Your task to perform on an android device: Open ESPN.com Image 0: 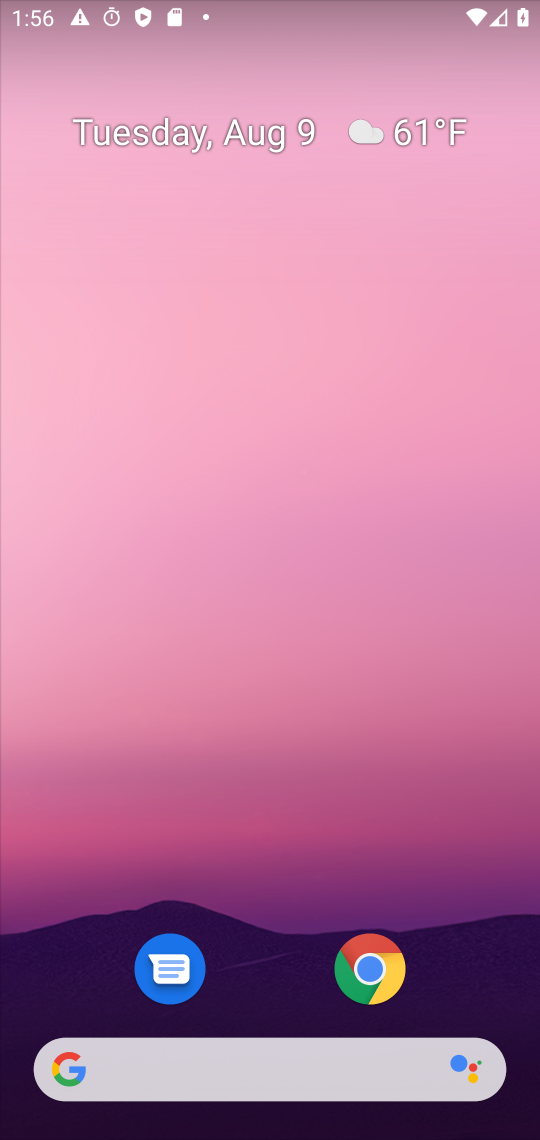
Step 0: drag from (338, 1081) to (279, 538)
Your task to perform on an android device: Open ESPN.com Image 1: 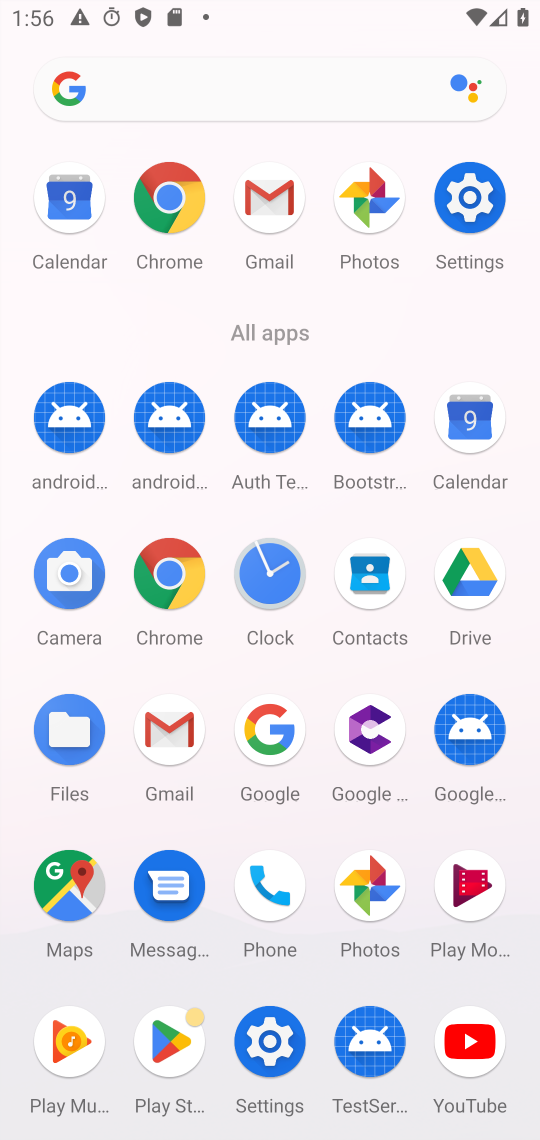
Step 1: click (164, 205)
Your task to perform on an android device: Open ESPN.com Image 2: 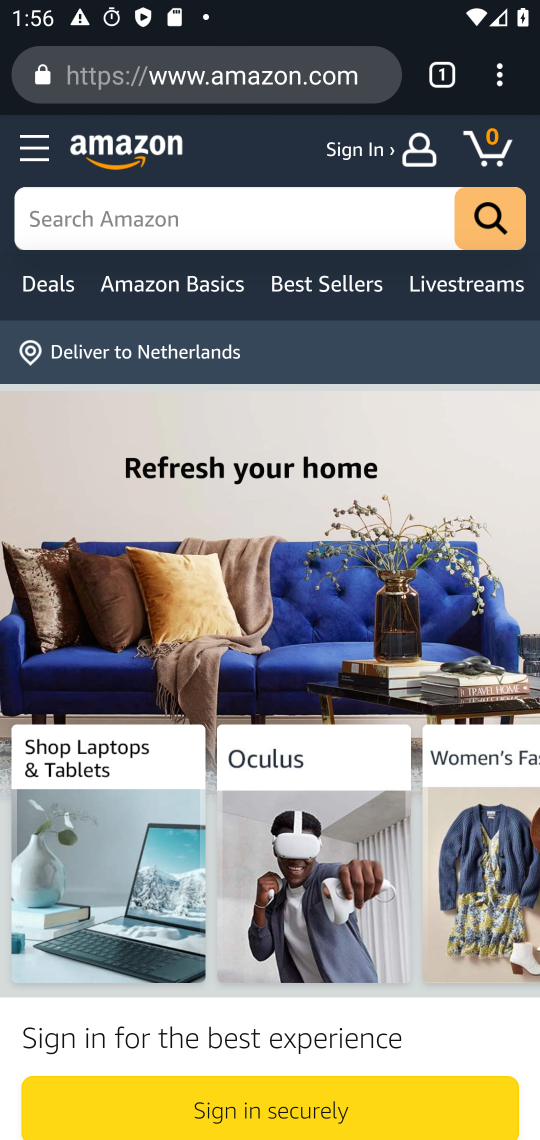
Step 2: click (215, 83)
Your task to perform on an android device: Open ESPN.com Image 3: 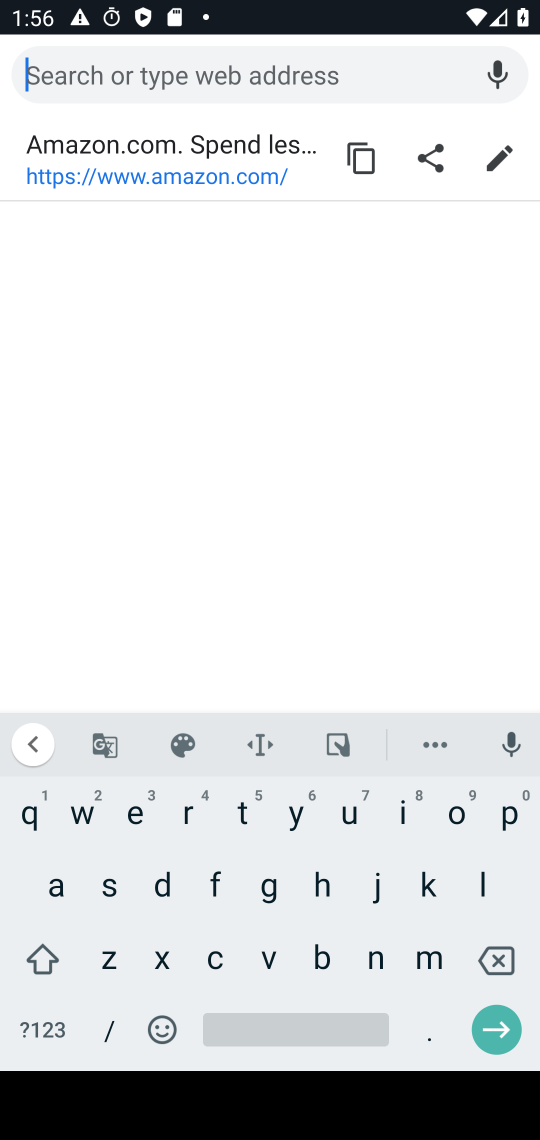
Step 3: click (128, 813)
Your task to perform on an android device: Open ESPN.com Image 4: 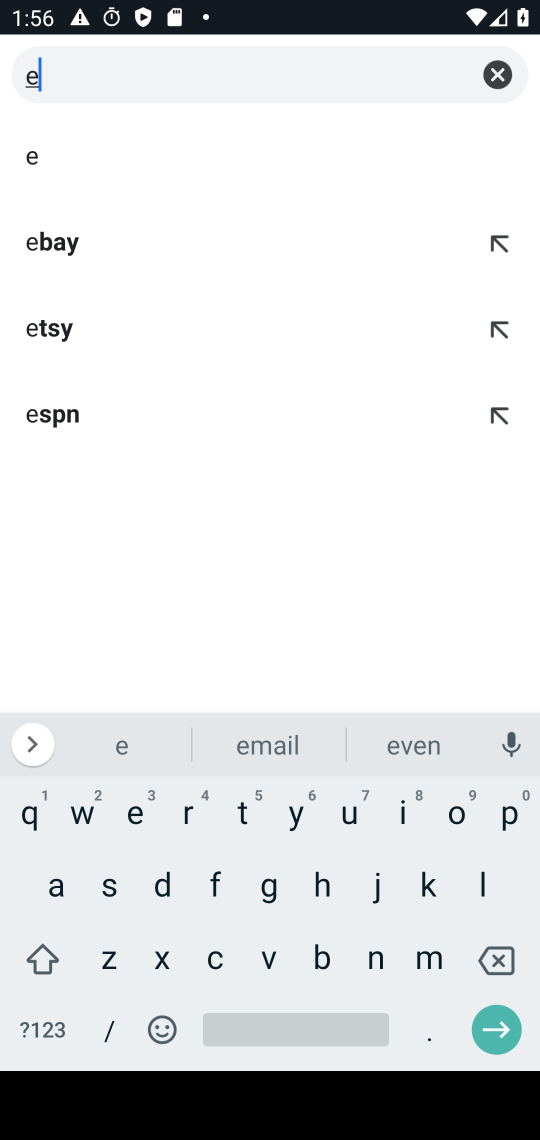
Step 4: click (103, 420)
Your task to perform on an android device: Open ESPN.com Image 5: 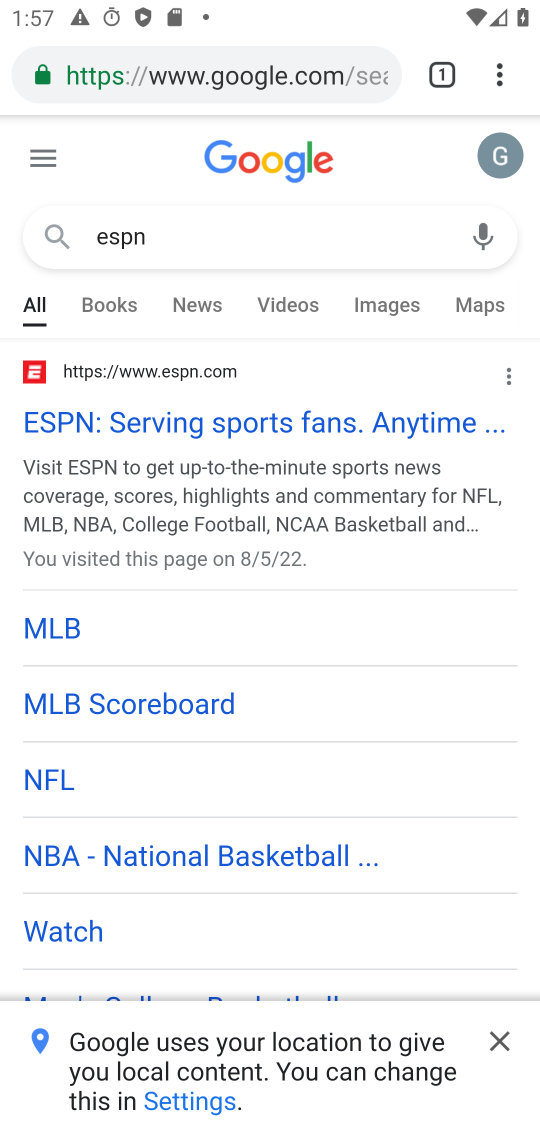
Step 5: click (79, 420)
Your task to perform on an android device: Open ESPN.com Image 6: 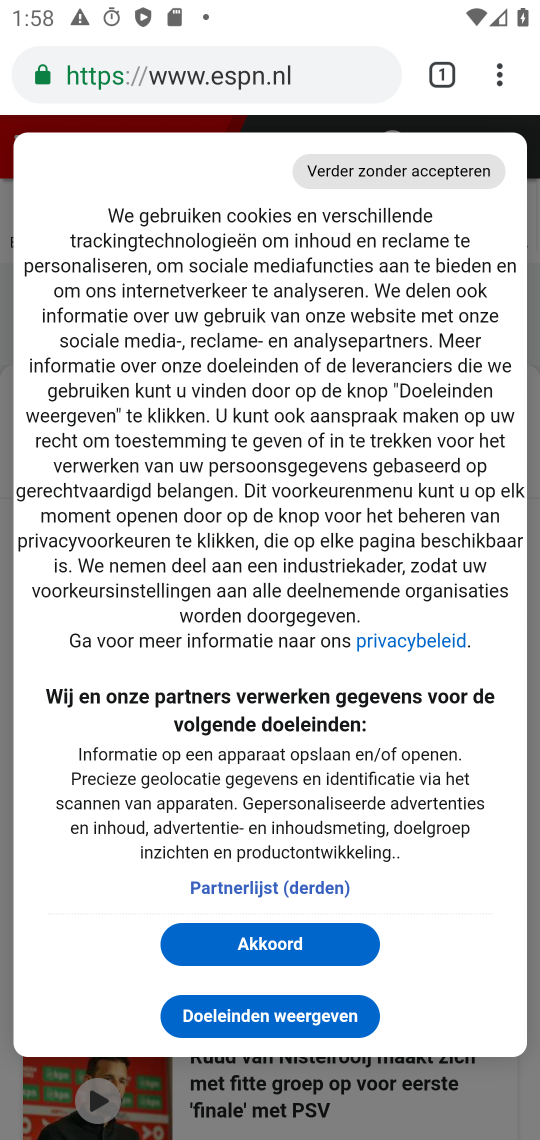
Step 6: click (281, 925)
Your task to perform on an android device: Open ESPN.com Image 7: 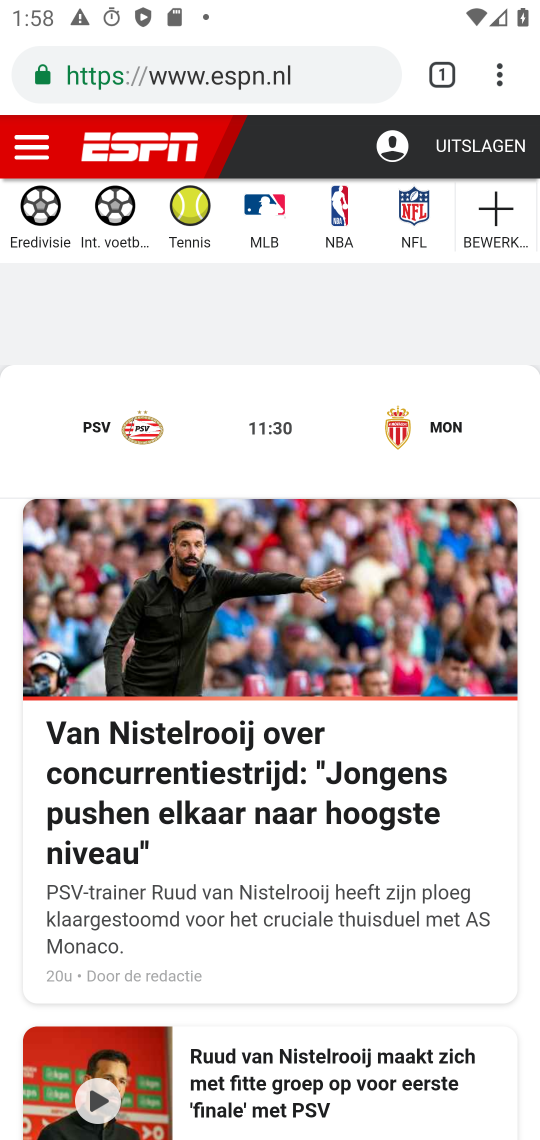
Step 7: task complete